Your task to perform on an android device: manage bookmarks in the chrome app Image 0: 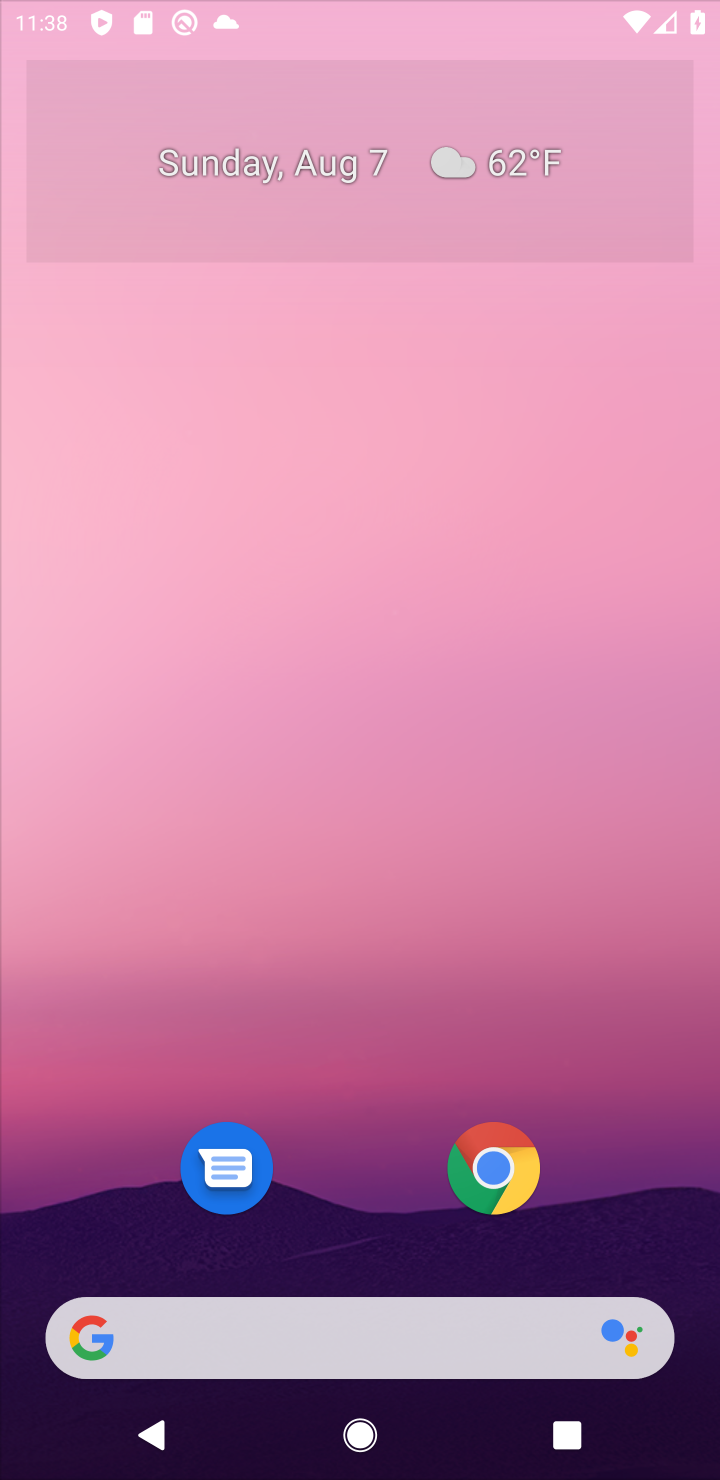
Step 0: press home button
Your task to perform on an android device: manage bookmarks in the chrome app Image 1: 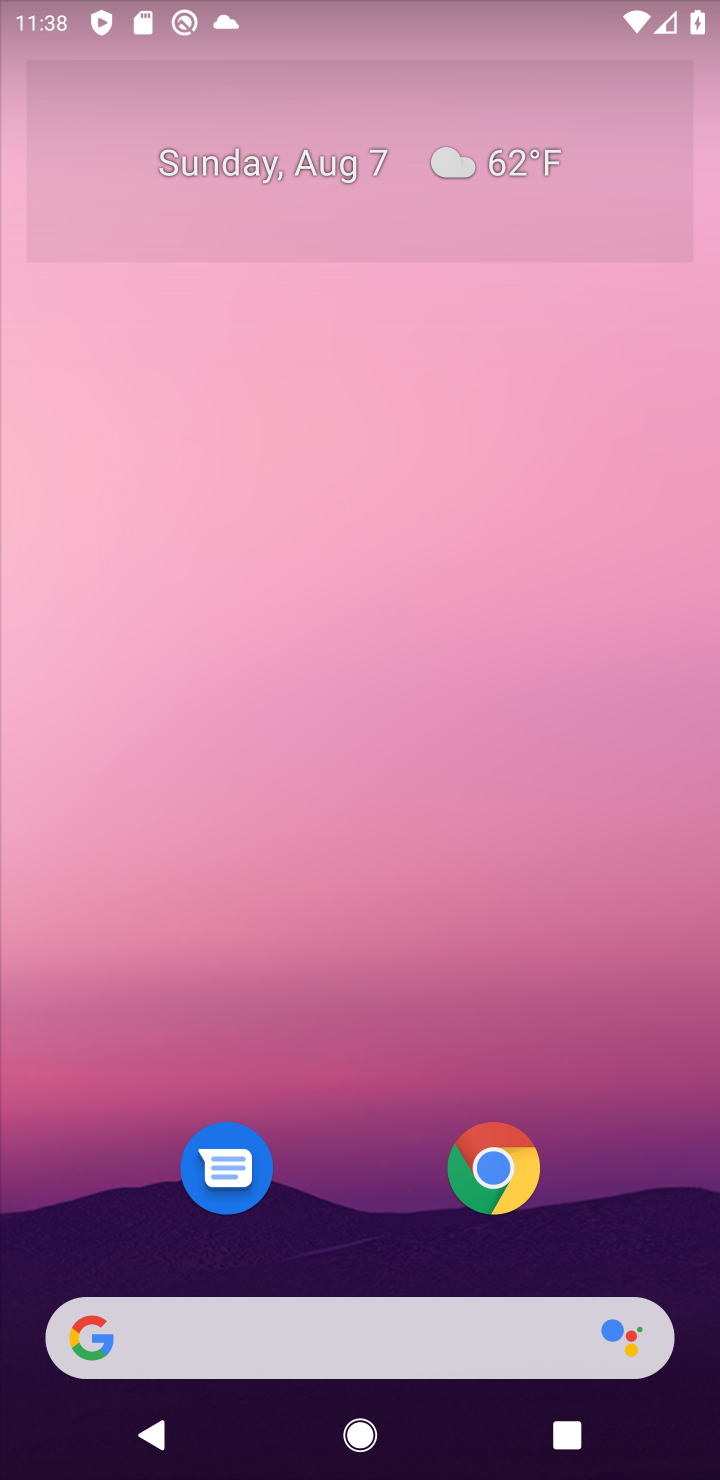
Step 1: drag from (359, 1271) to (455, 279)
Your task to perform on an android device: manage bookmarks in the chrome app Image 2: 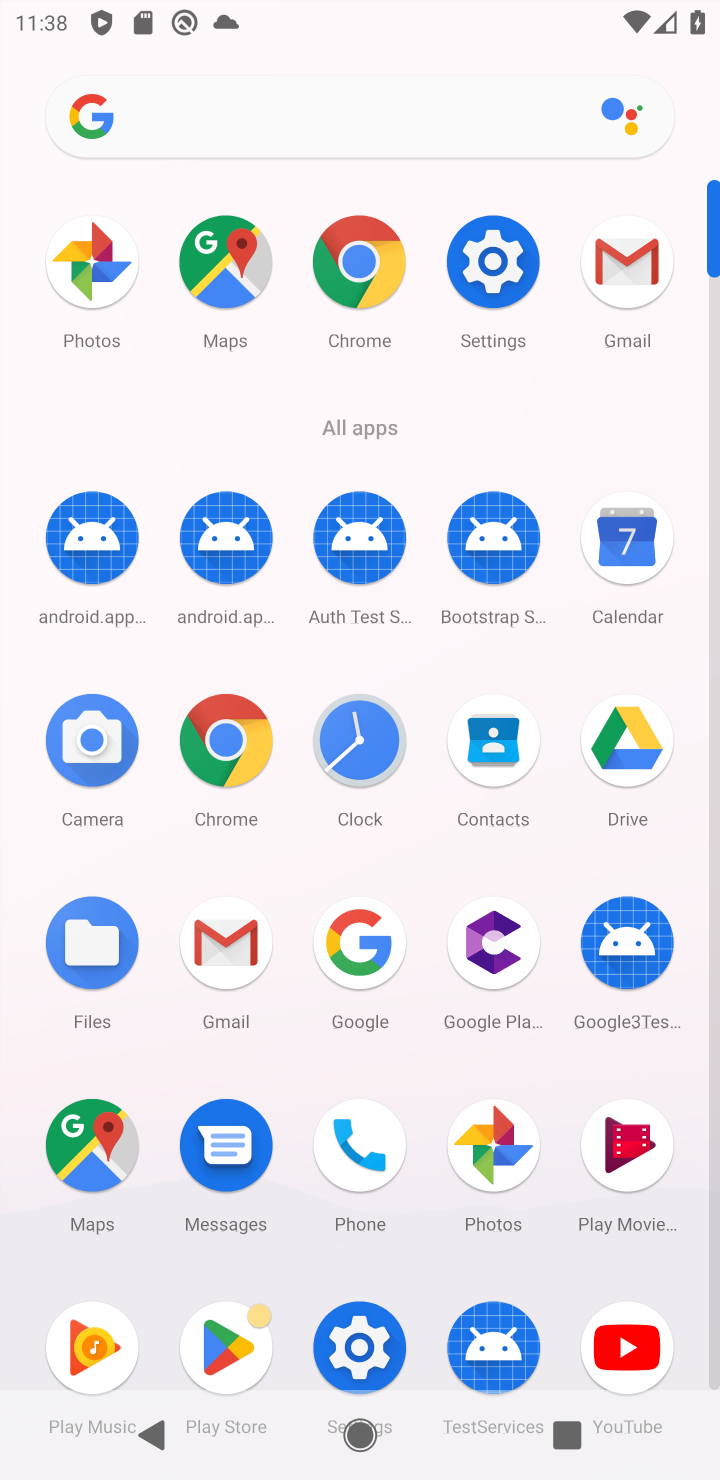
Step 2: click (356, 286)
Your task to perform on an android device: manage bookmarks in the chrome app Image 3: 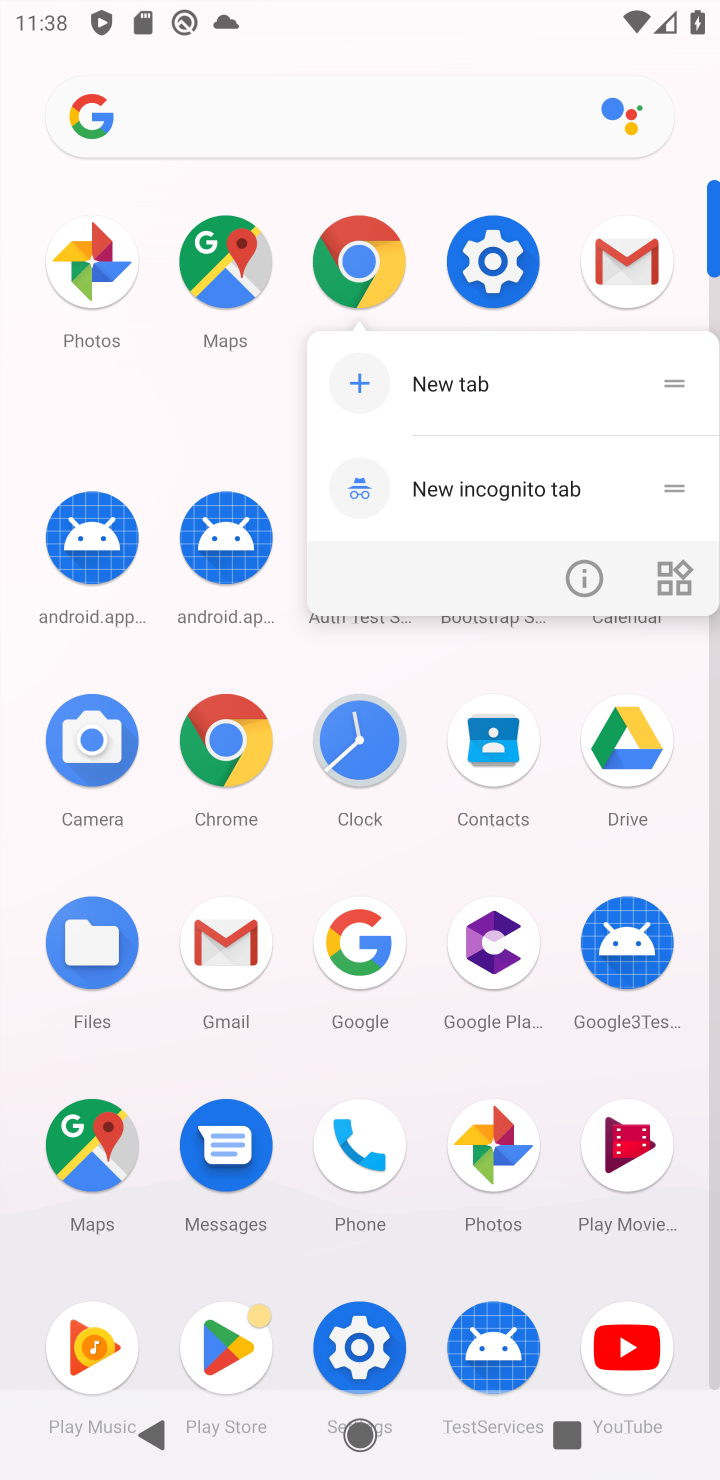
Step 3: click (356, 286)
Your task to perform on an android device: manage bookmarks in the chrome app Image 4: 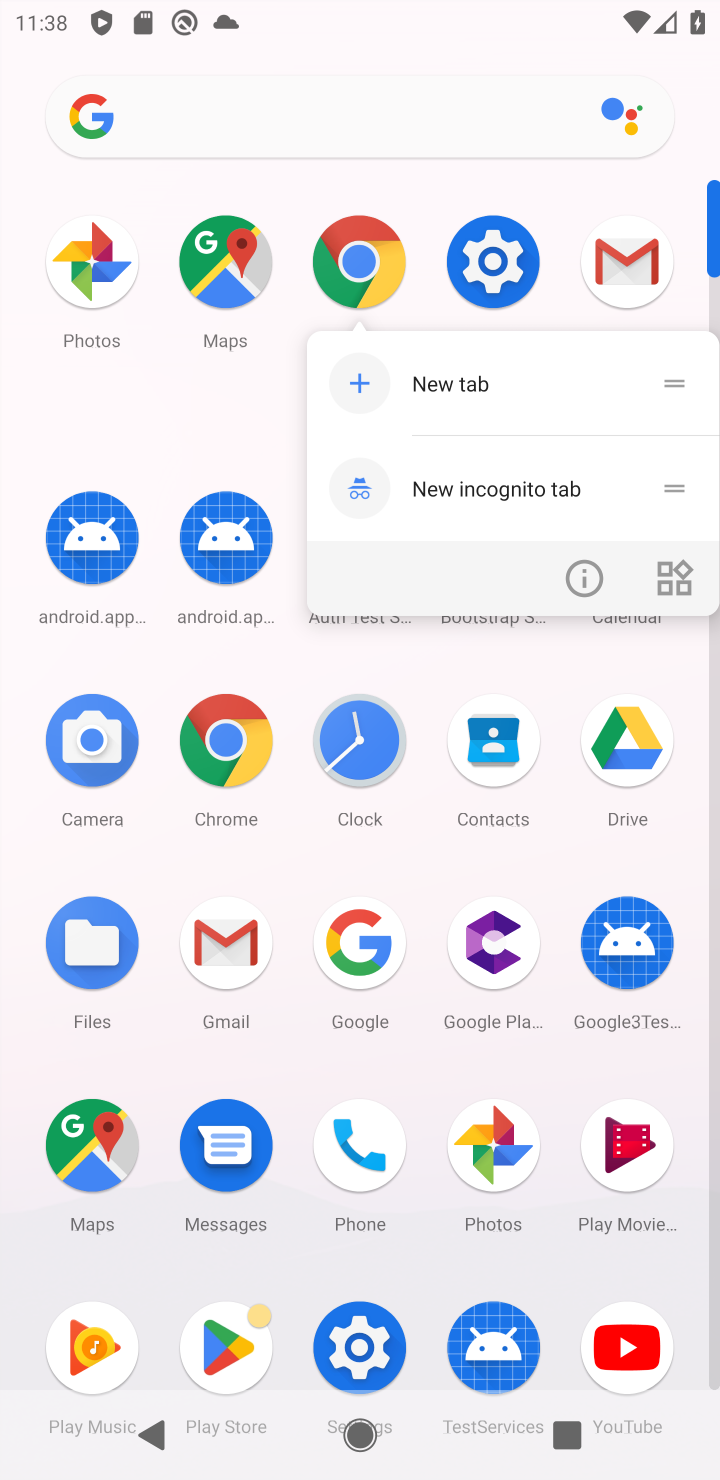
Step 4: click (356, 286)
Your task to perform on an android device: manage bookmarks in the chrome app Image 5: 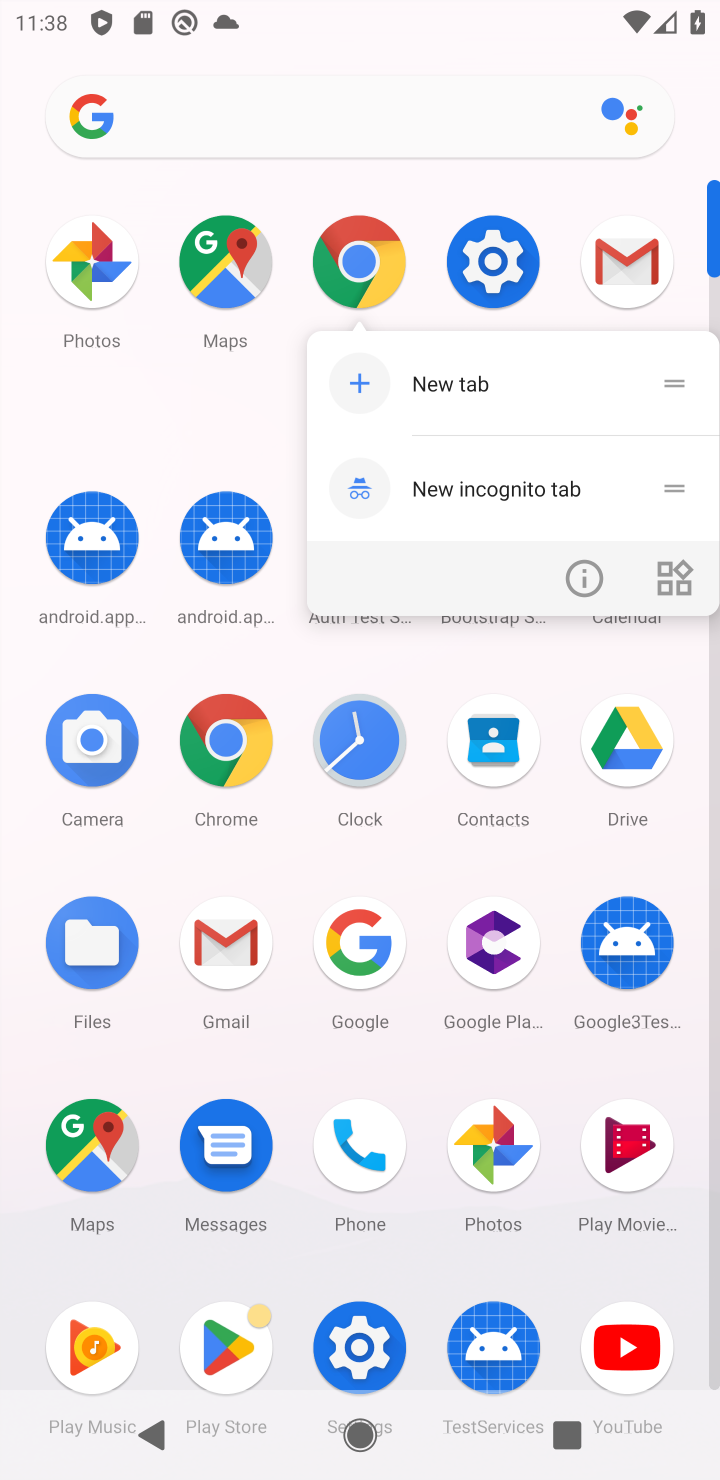
Step 5: click (355, 273)
Your task to perform on an android device: manage bookmarks in the chrome app Image 6: 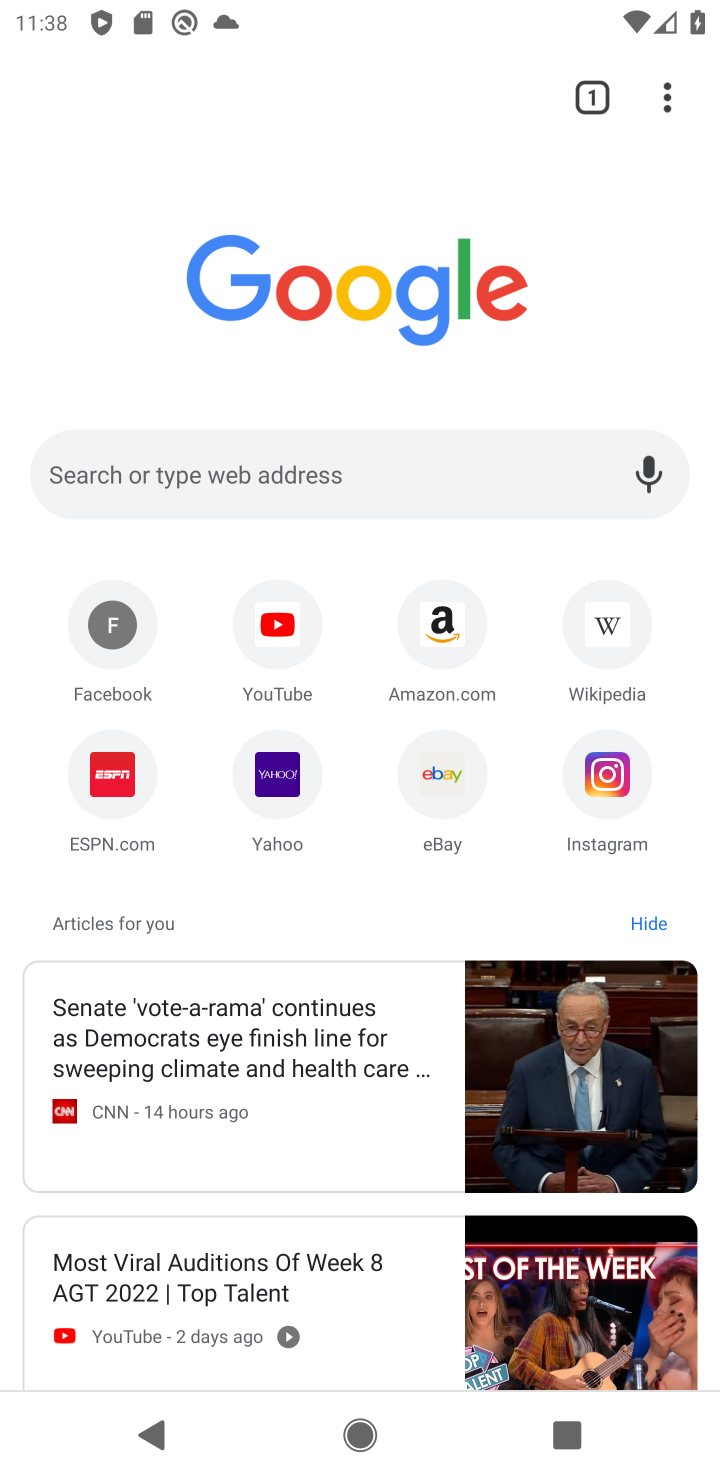
Step 6: click (670, 91)
Your task to perform on an android device: manage bookmarks in the chrome app Image 7: 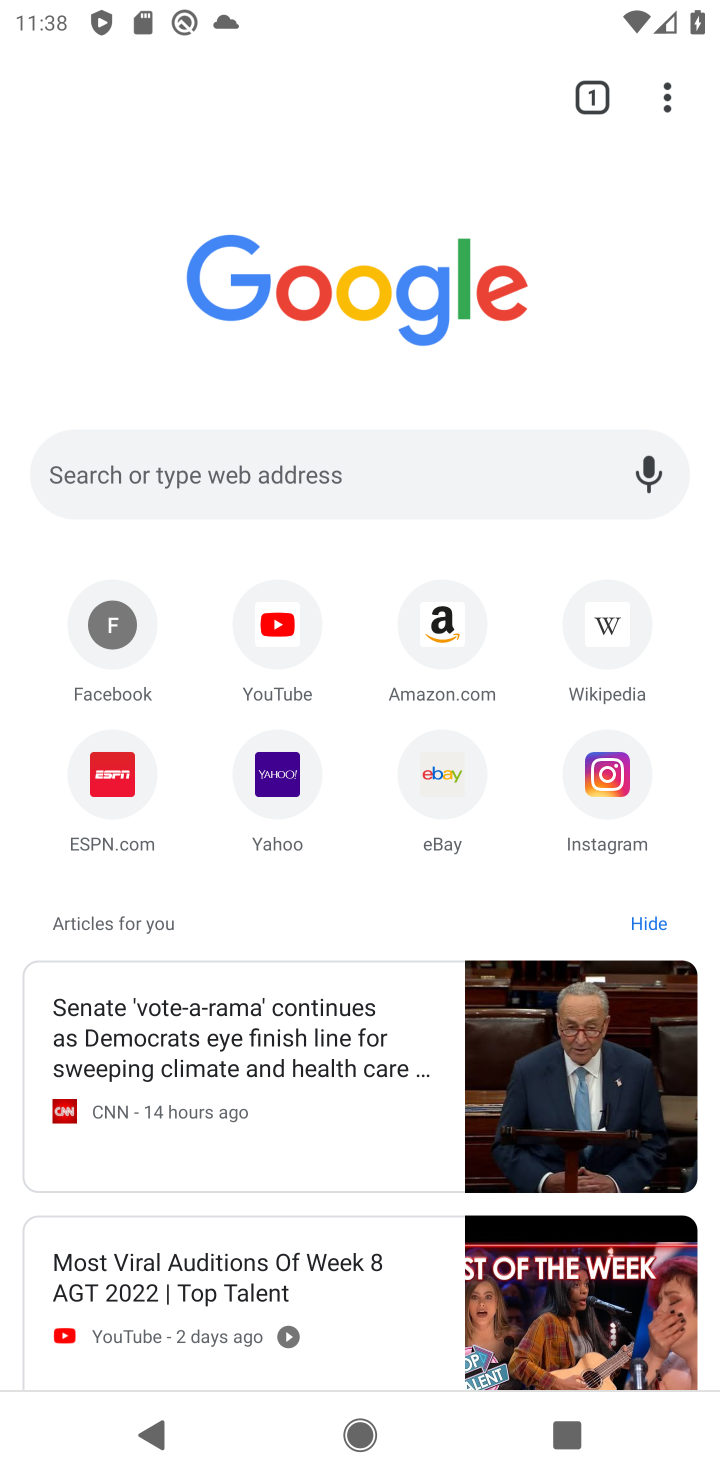
Step 7: drag from (670, 91) to (325, 476)
Your task to perform on an android device: manage bookmarks in the chrome app Image 8: 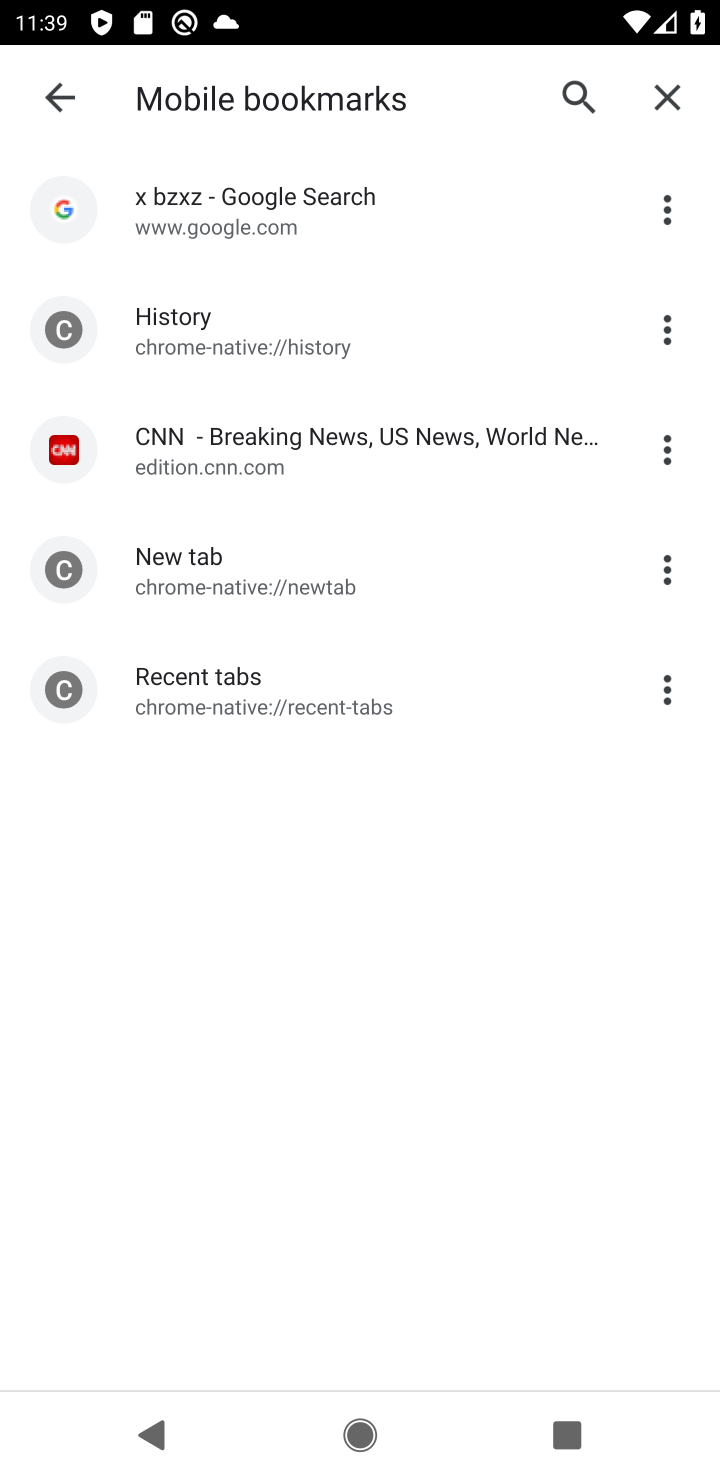
Step 8: click (669, 446)
Your task to perform on an android device: manage bookmarks in the chrome app Image 9: 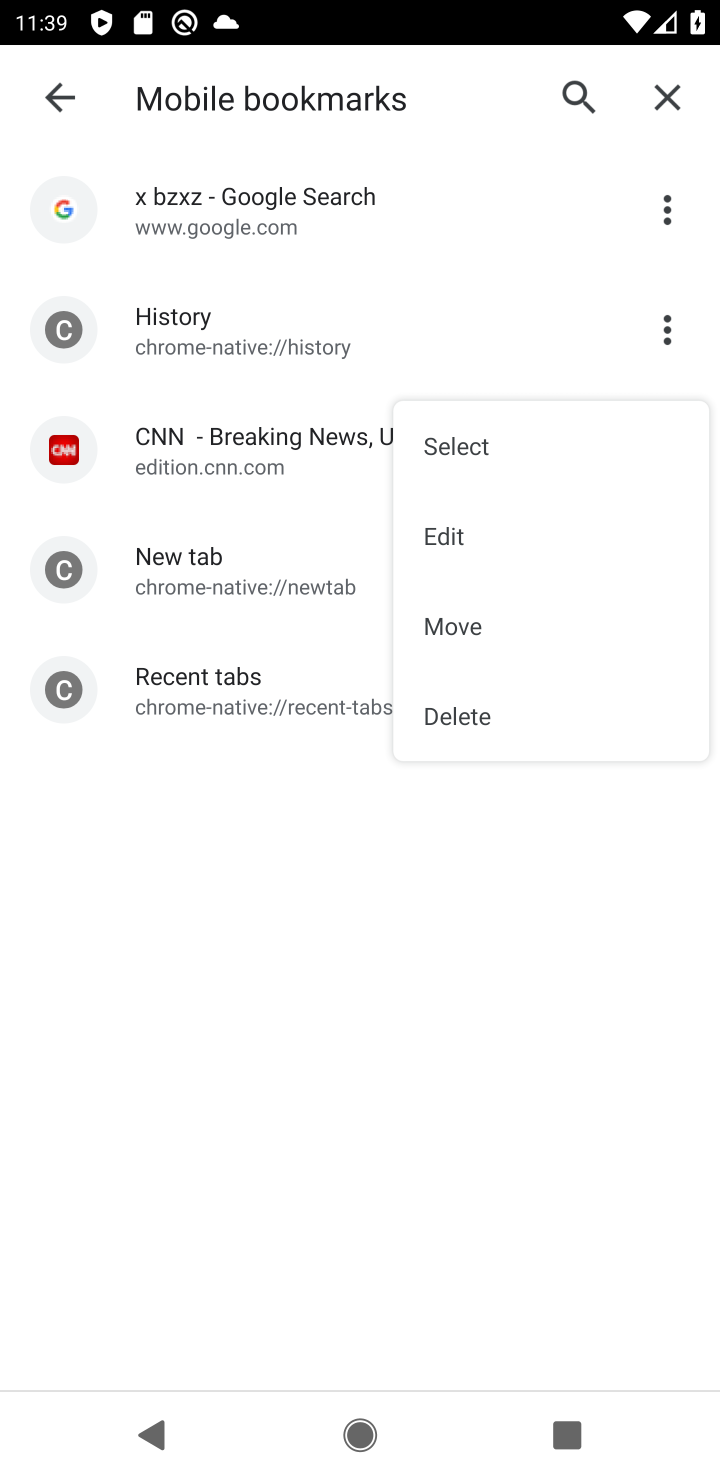
Step 9: click (437, 545)
Your task to perform on an android device: manage bookmarks in the chrome app Image 10: 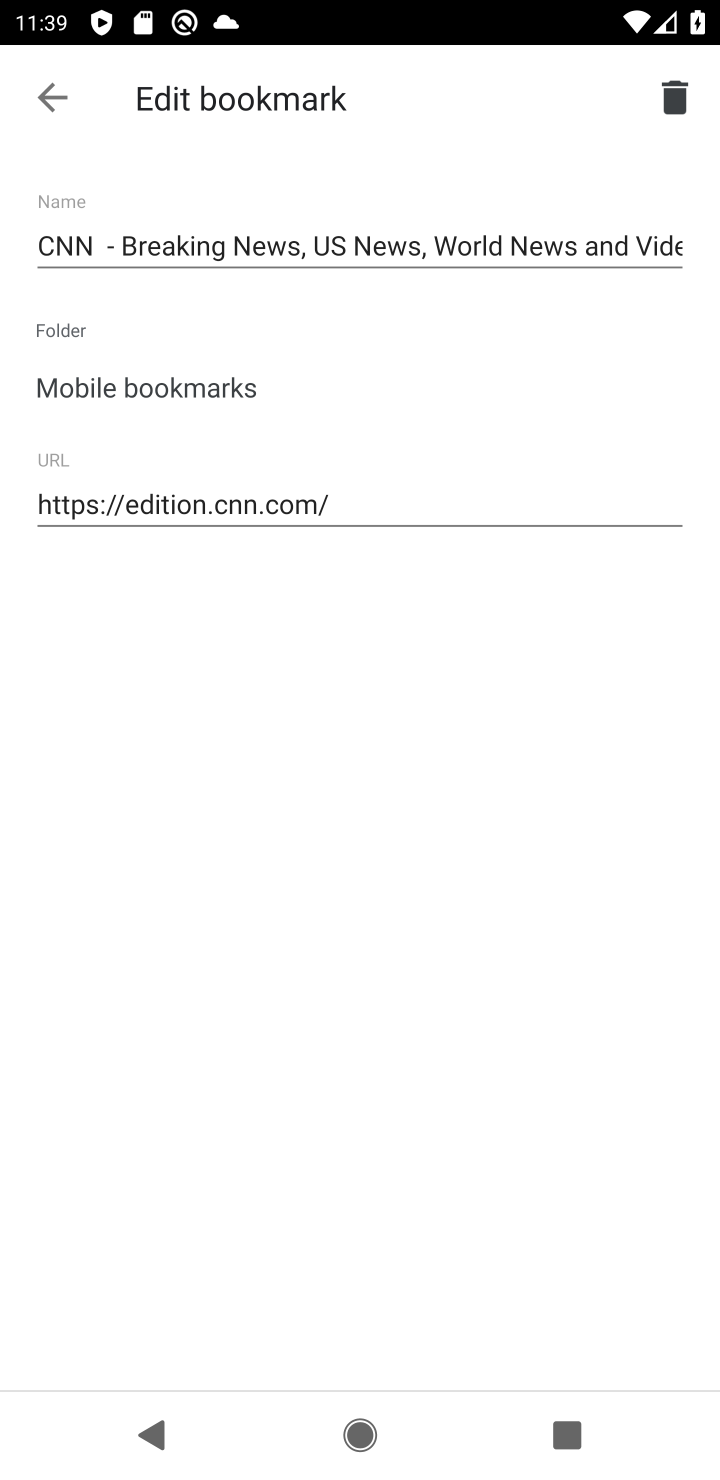
Step 10: task complete